Your task to perform on an android device: turn notification dots off Image 0: 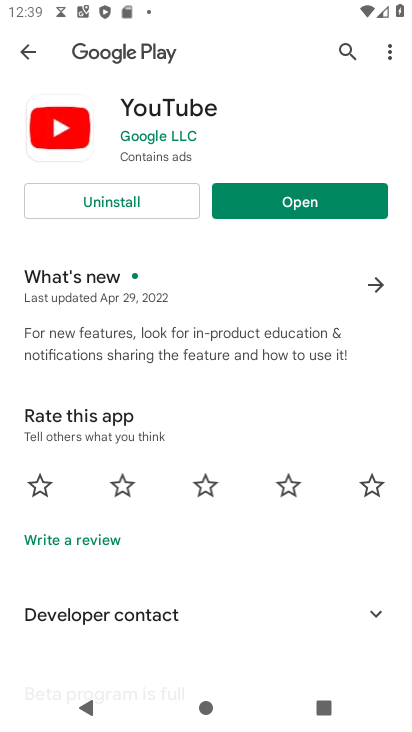
Step 0: press home button
Your task to perform on an android device: turn notification dots off Image 1: 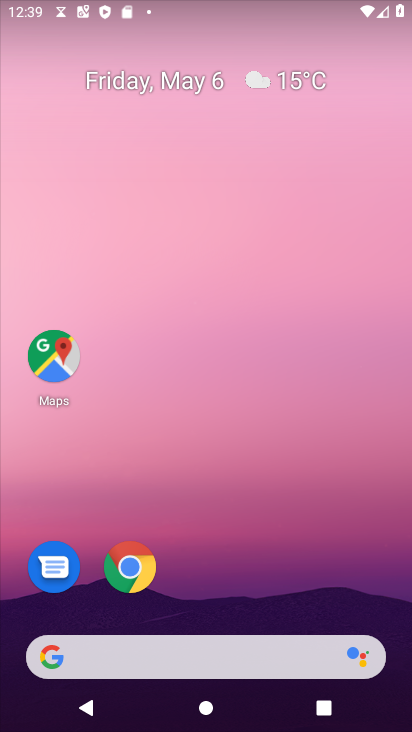
Step 1: drag from (256, 568) to (240, 0)
Your task to perform on an android device: turn notification dots off Image 2: 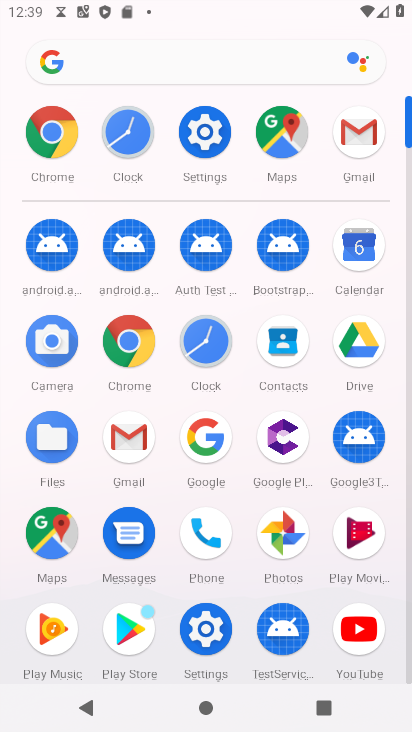
Step 2: click (217, 178)
Your task to perform on an android device: turn notification dots off Image 3: 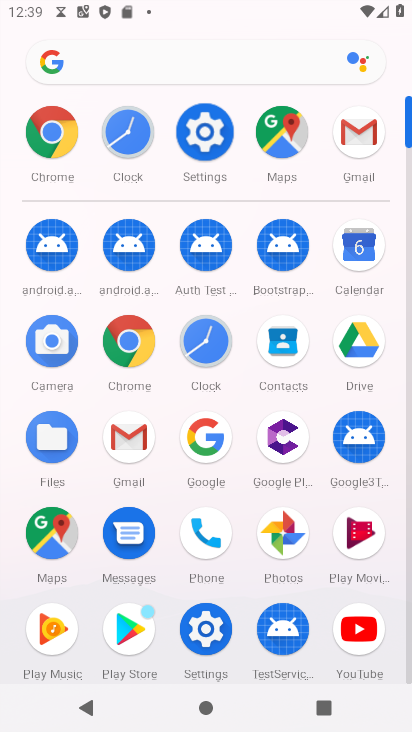
Step 3: click (203, 120)
Your task to perform on an android device: turn notification dots off Image 4: 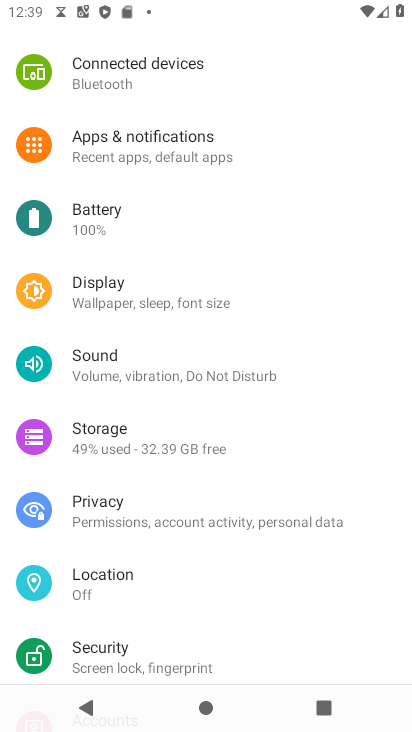
Step 4: click (178, 155)
Your task to perform on an android device: turn notification dots off Image 5: 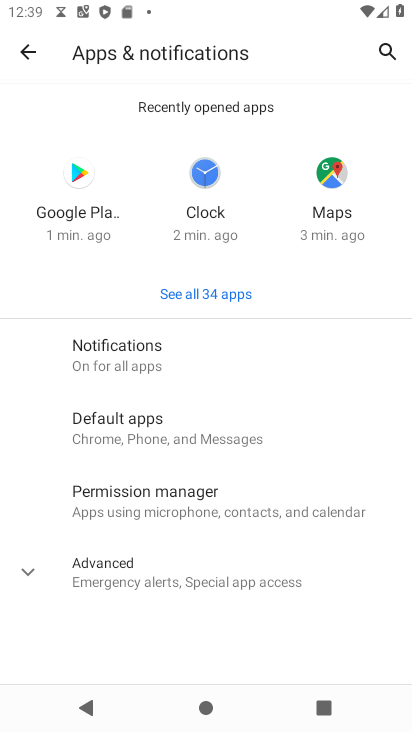
Step 5: click (81, 356)
Your task to perform on an android device: turn notification dots off Image 6: 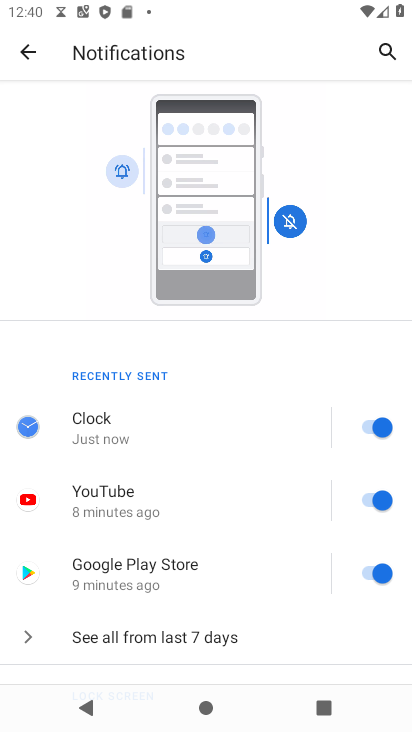
Step 6: drag from (119, 557) to (133, 149)
Your task to perform on an android device: turn notification dots off Image 7: 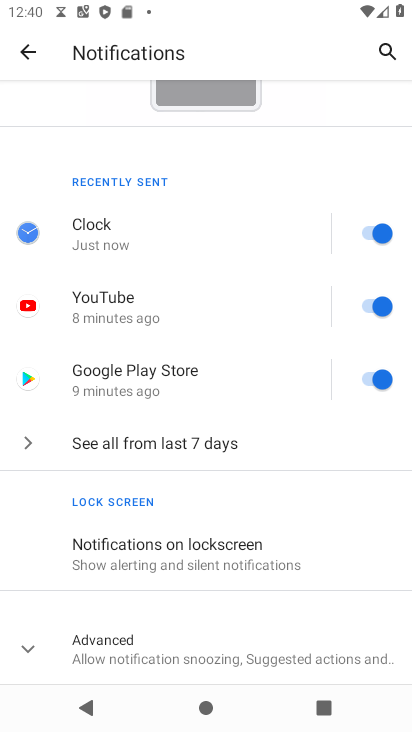
Step 7: drag from (170, 562) to (191, 258)
Your task to perform on an android device: turn notification dots off Image 8: 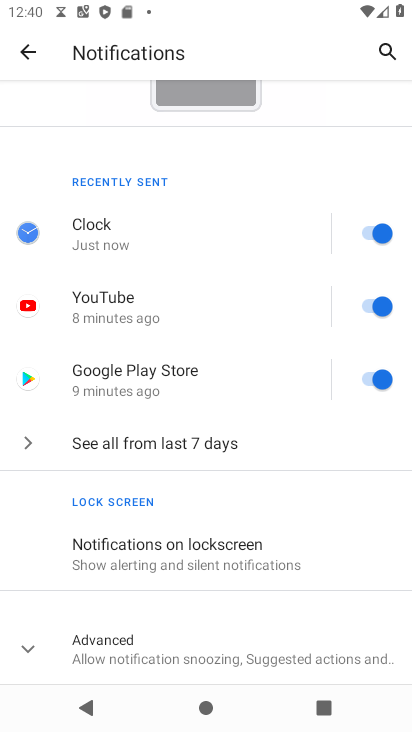
Step 8: click (210, 654)
Your task to perform on an android device: turn notification dots off Image 9: 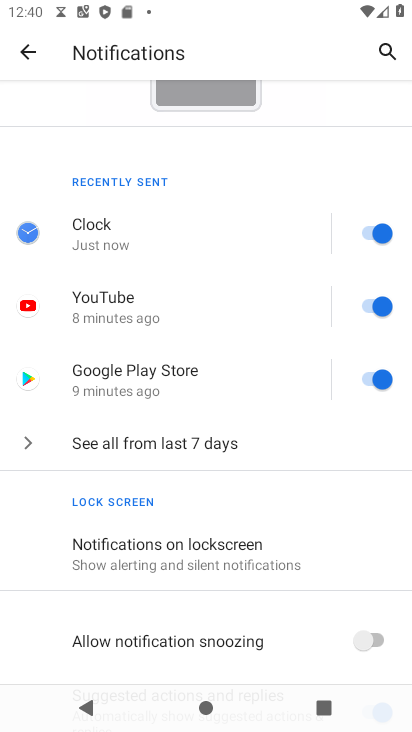
Step 9: drag from (225, 651) to (261, 349)
Your task to perform on an android device: turn notification dots off Image 10: 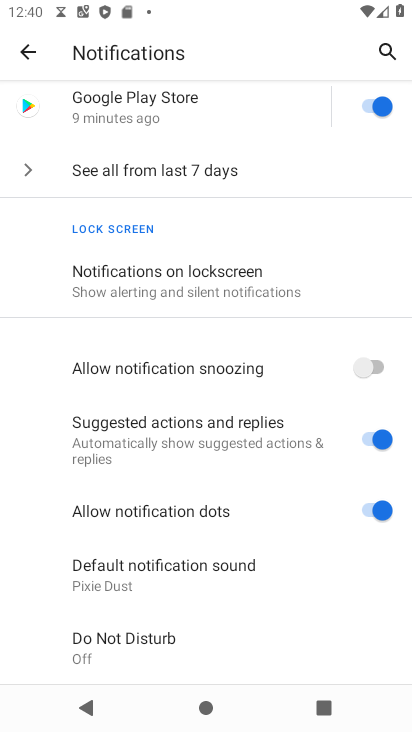
Step 10: click (372, 509)
Your task to perform on an android device: turn notification dots off Image 11: 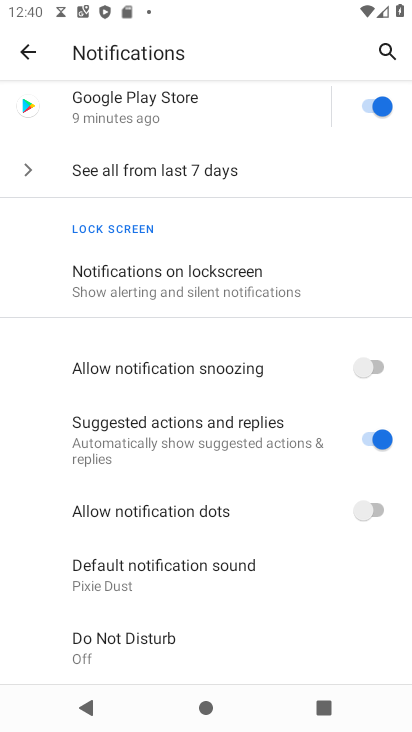
Step 11: task complete